Your task to perform on an android device: Search for Italian restaurants on Maps Image 0: 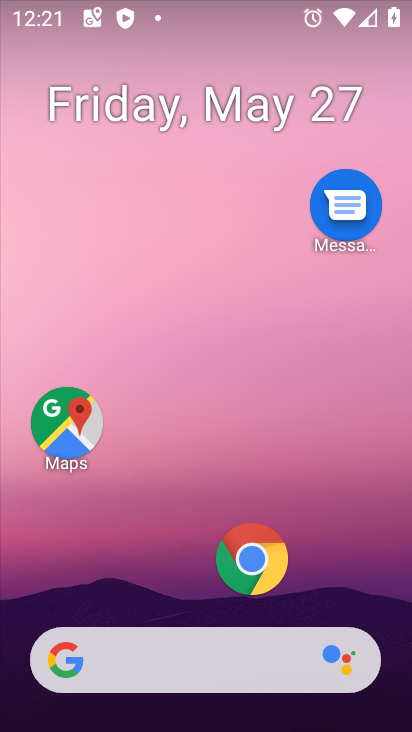
Step 0: drag from (126, 569) to (223, 151)
Your task to perform on an android device: Search for Italian restaurants on Maps Image 1: 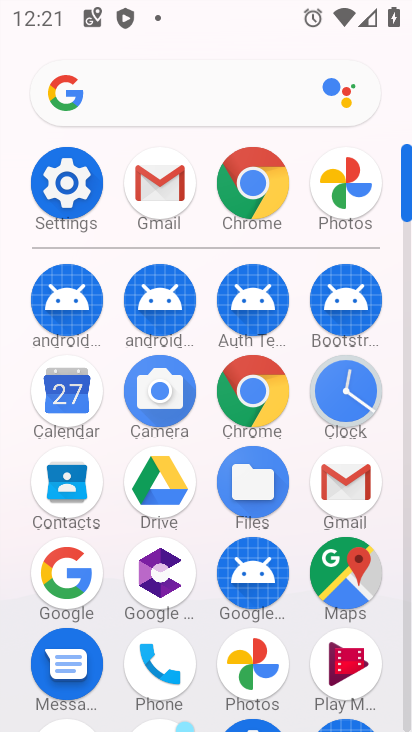
Step 1: click (342, 544)
Your task to perform on an android device: Search for Italian restaurants on Maps Image 2: 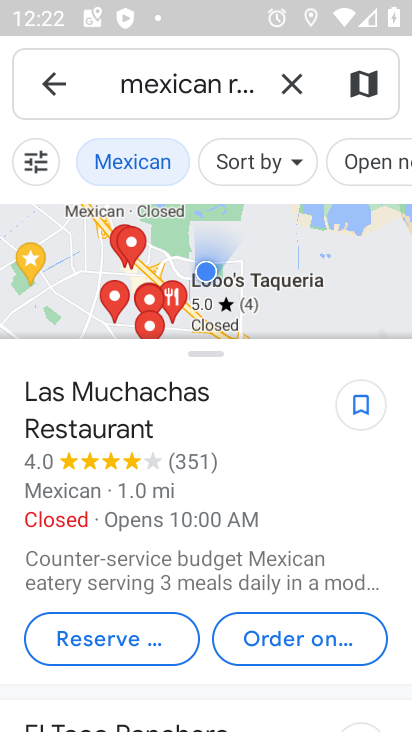
Step 2: click (303, 76)
Your task to perform on an android device: Search for Italian restaurants on Maps Image 3: 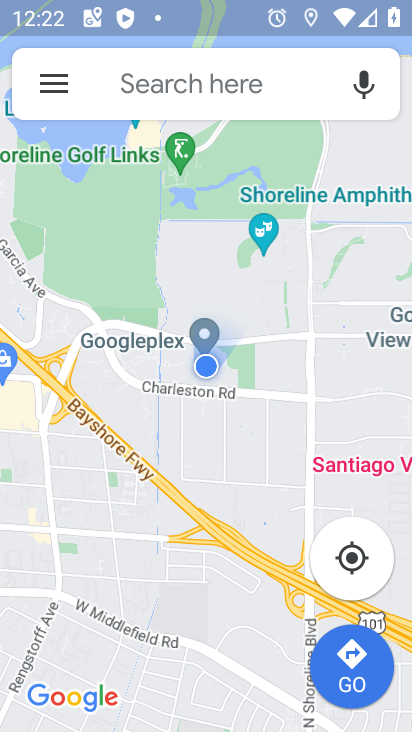
Step 3: click (213, 94)
Your task to perform on an android device: Search for Italian restaurants on Maps Image 4: 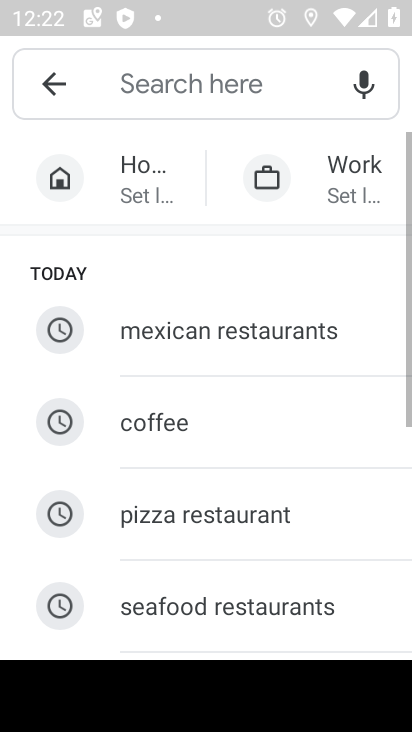
Step 4: drag from (228, 541) to (226, 272)
Your task to perform on an android device: Search for Italian restaurants on Maps Image 5: 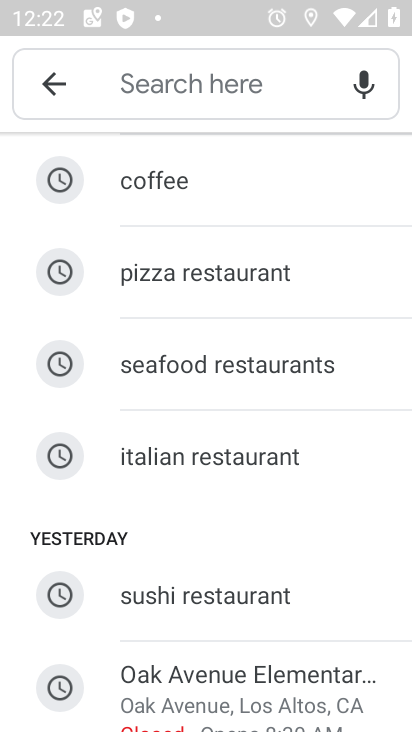
Step 5: click (201, 463)
Your task to perform on an android device: Search for Italian restaurants on Maps Image 6: 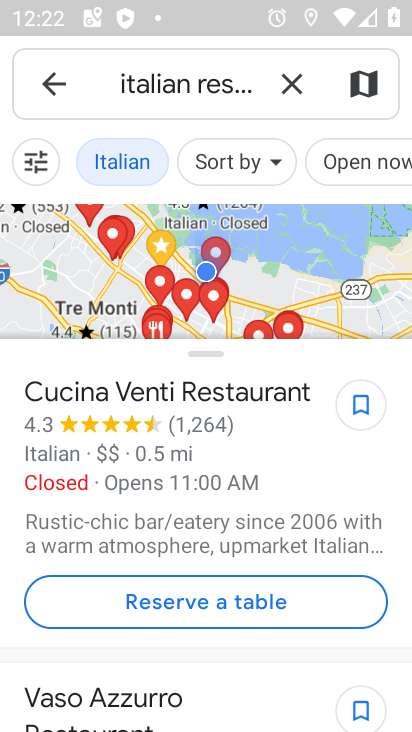
Step 6: task complete